Your task to perform on an android device: Clear the cart on bestbuy.com. Search for "sony triple a" on bestbuy.com, select the first entry, add it to the cart, then select checkout. Image 0: 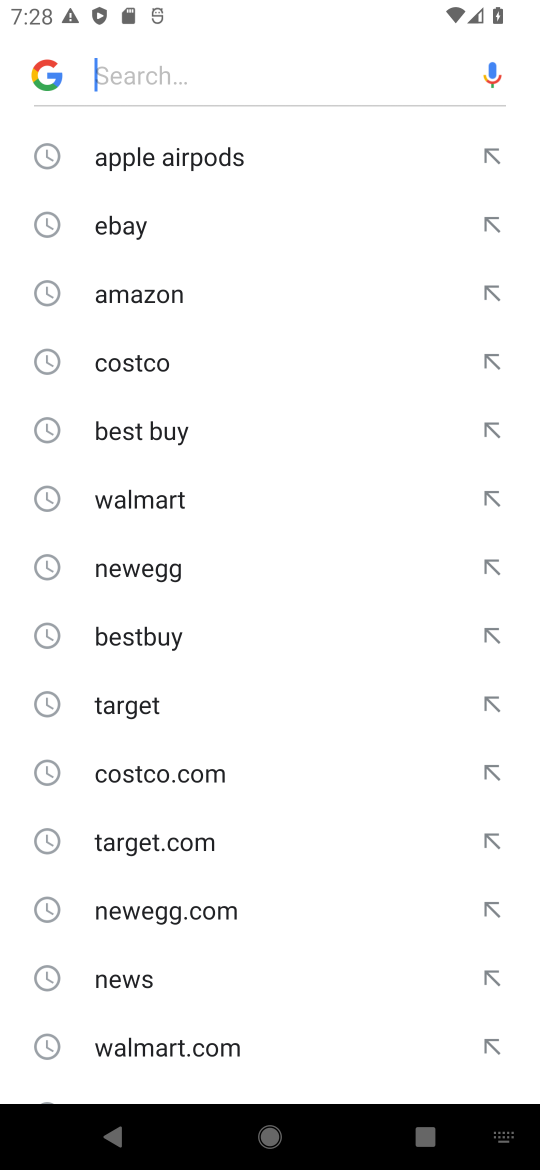
Step 0: press home button
Your task to perform on an android device: Clear the cart on bestbuy.com. Search for "sony triple a" on bestbuy.com, select the first entry, add it to the cart, then select checkout. Image 1: 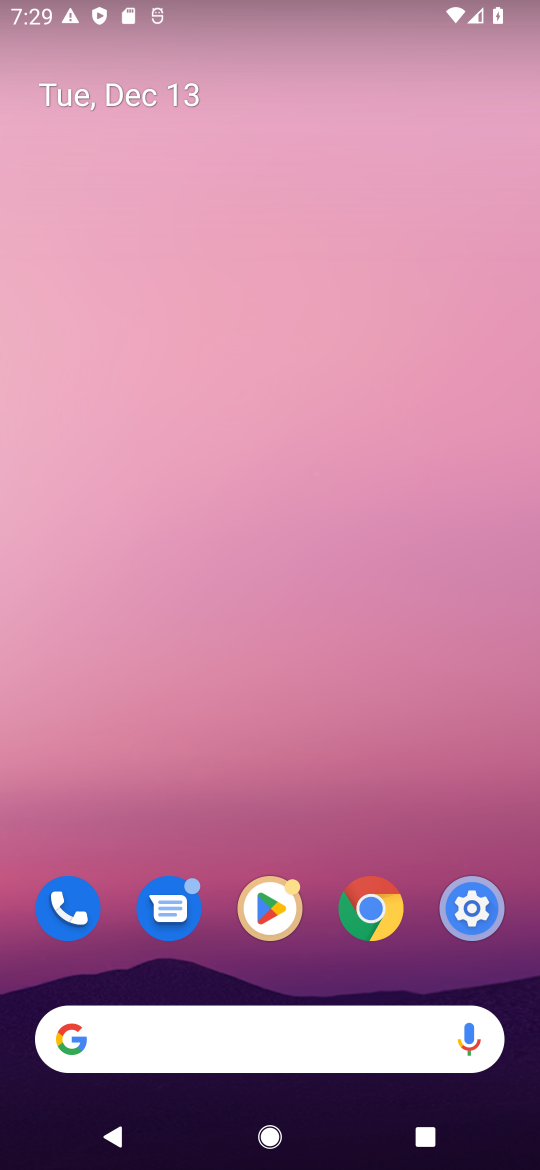
Step 1: click (108, 1049)
Your task to perform on an android device: Clear the cart on bestbuy.com. Search for "sony triple a" on bestbuy.com, select the first entry, add it to the cart, then select checkout. Image 2: 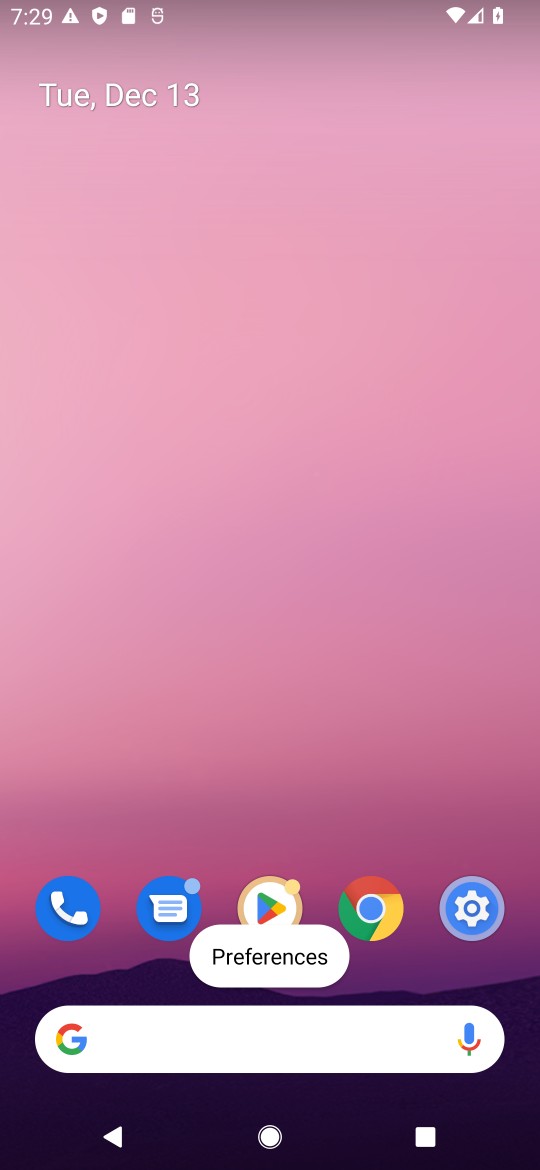
Step 2: click (117, 1035)
Your task to perform on an android device: Clear the cart on bestbuy.com. Search for "sony triple a" on bestbuy.com, select the first entry, add it to the cart, then select checkout. Image 3: 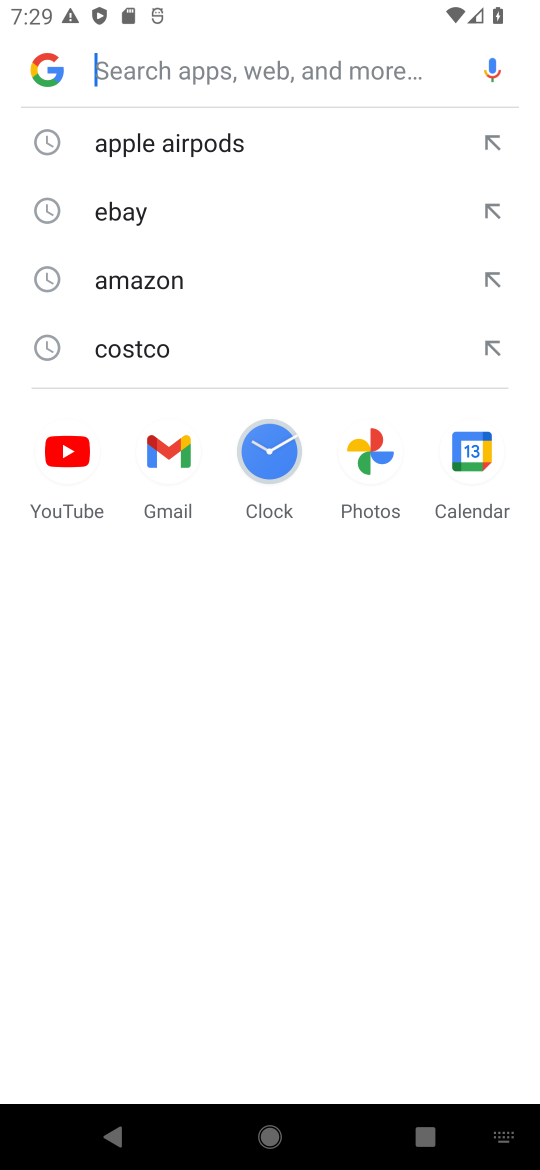
Step 3: type "bestbuy.com"
Your task to perform on an android device: Clear the cart on bestbuy.com. Search for "sony triple a" on bestbuy.com, select the first entry, add it to the cart, then select checkout. Image 4: 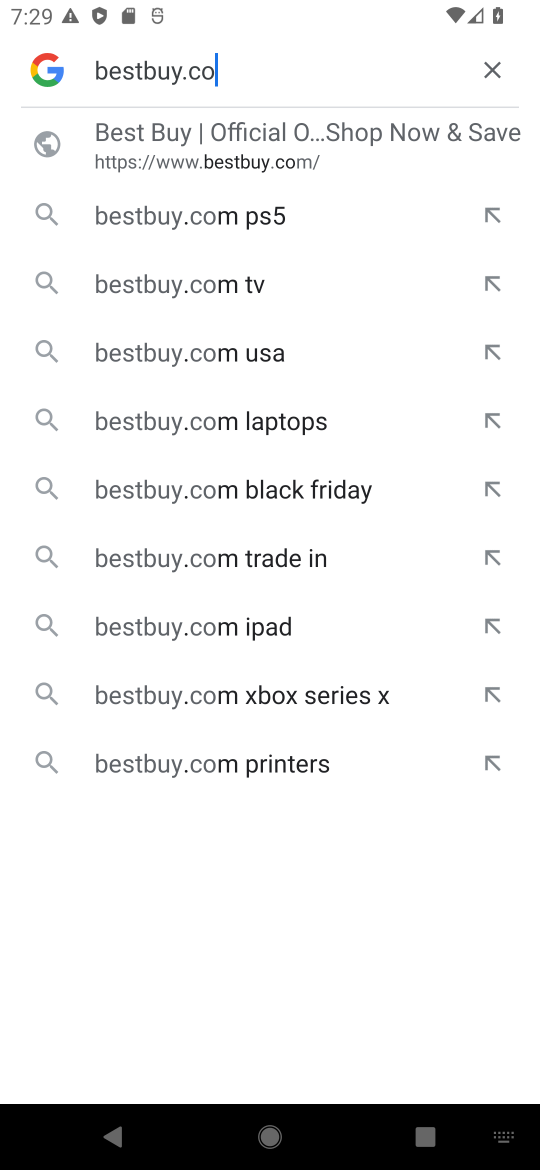
Step 4: press enter
Your task to perform on an android device: Clear the cart on bestbuy.com. Search for "sony triple a" on bestbuy.com, select the first entry, add it to the cart, then select checkout. Image 5: 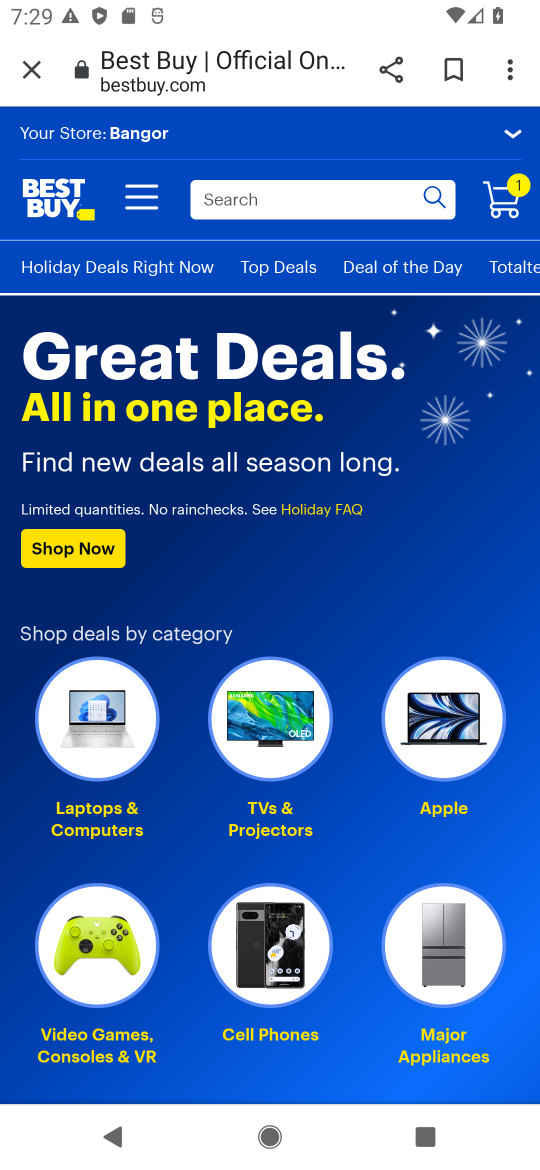
Step 5: click (260, 199)
Your task to perform on an android device: Clear the cart on bestbuy.com. Search for "sony triple a" on bestbuy.com, select the first entry, add it to the cart, then select checkout. Image 6: 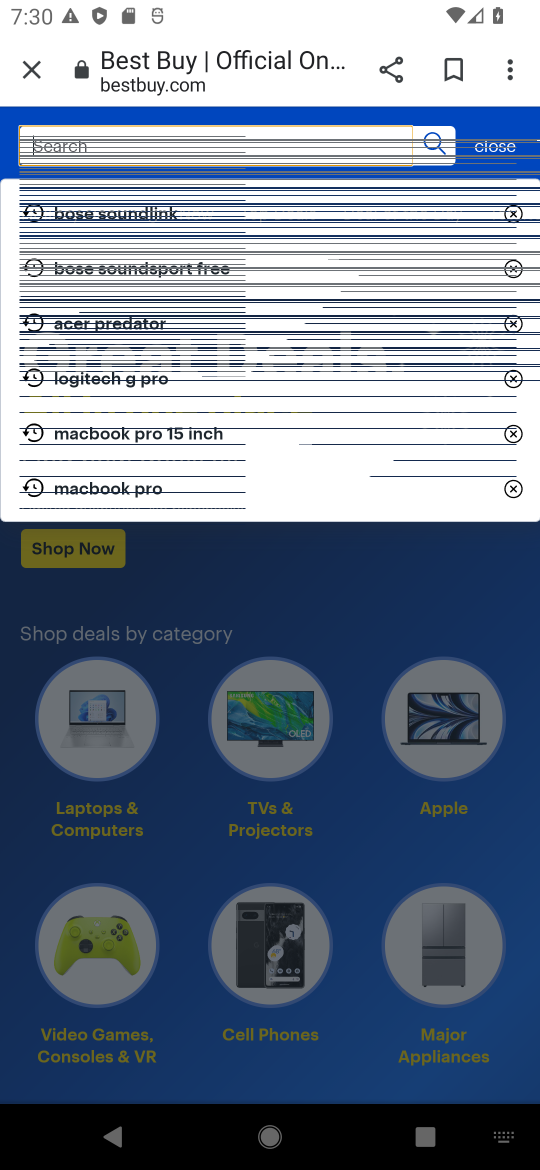
Step 6: press enter
Your task to perform on an android device: Clear the cart on bestbuy.com. Search for "sony triple a" on bestbuy.com, select the first entry, add it to the cart, then select checkout. Image 7: 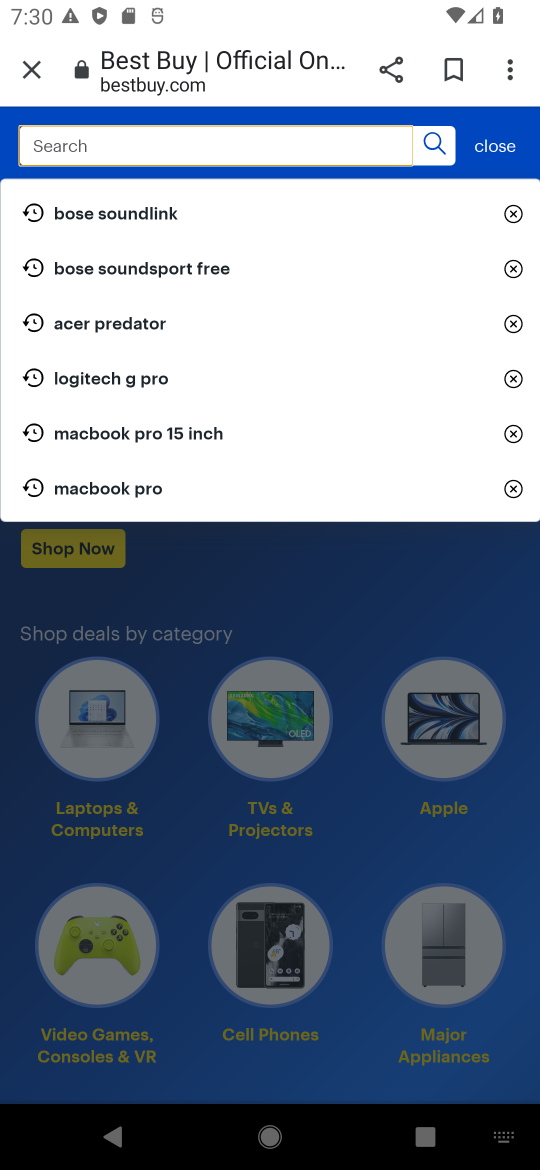
Step 7: type "sony triple a"
Your task to perform on an android device: Clear the cart on bestbuy.com. Search for "sony triple a" on bestbuy.com, select the first entry, add it to the cart, then select checkout. Image 8: 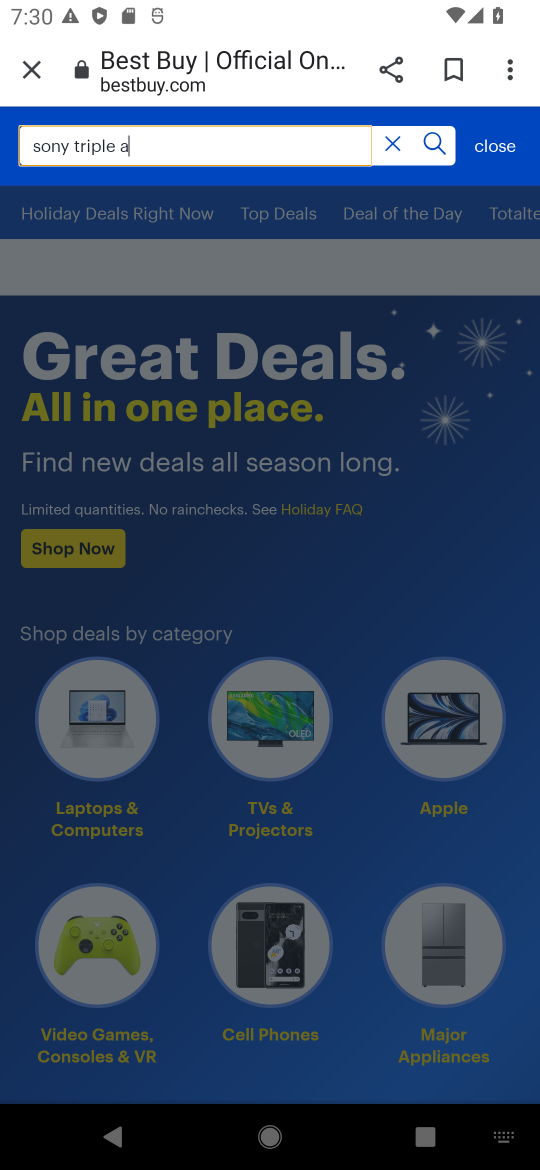
Step 8: press enter
Your task to perform on an android device: Clear the cart on bestbuy.com. Search for "sony triple a" on bestbuy.com, select the first entry, add it to the cart, then select checkout. Image 9: 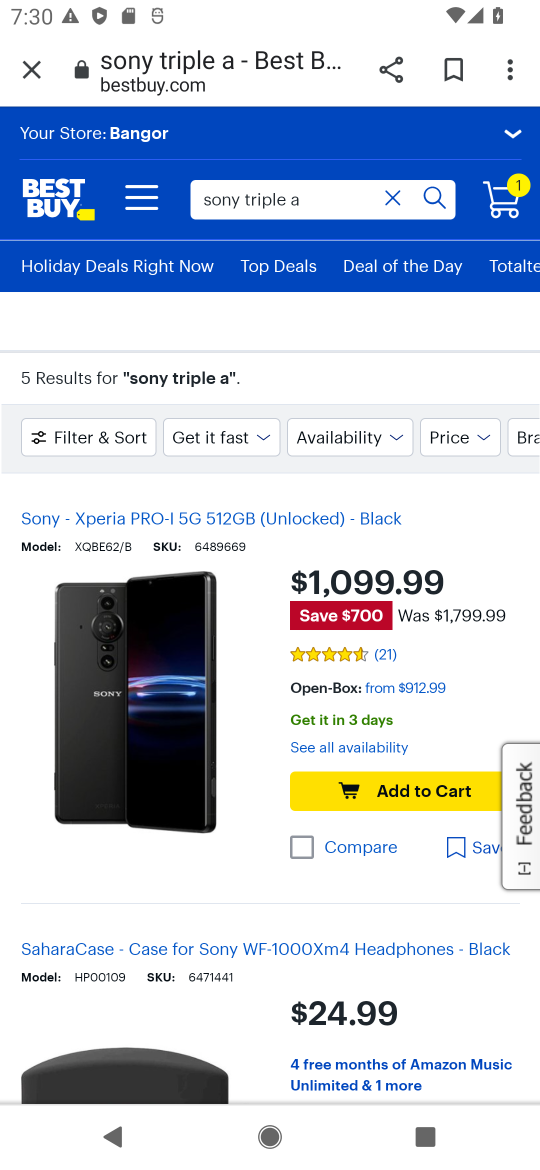
Step 9: task complete